Your task to perform on an android device: delete the emails in spam in the gmail app Image 0: 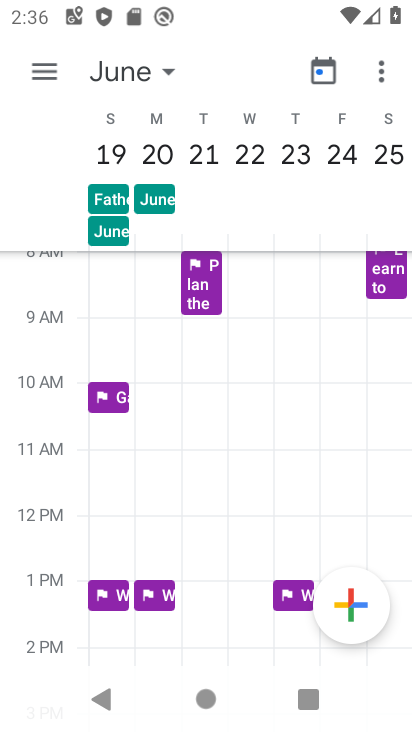
Step 0: press home button
Your task to perform on an android device: delete the emails in spam in the gmail app Image 1: 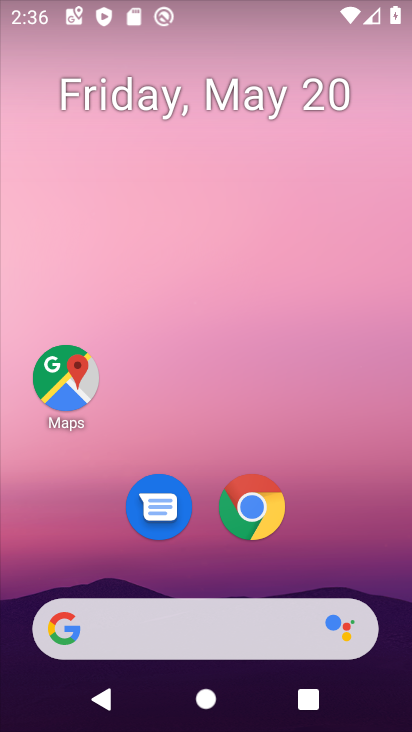
Step 1: drag from (225, 722) to (229, 150)
Your task to perform on an android device: delete the emails in spam in the gmail app Image 2: 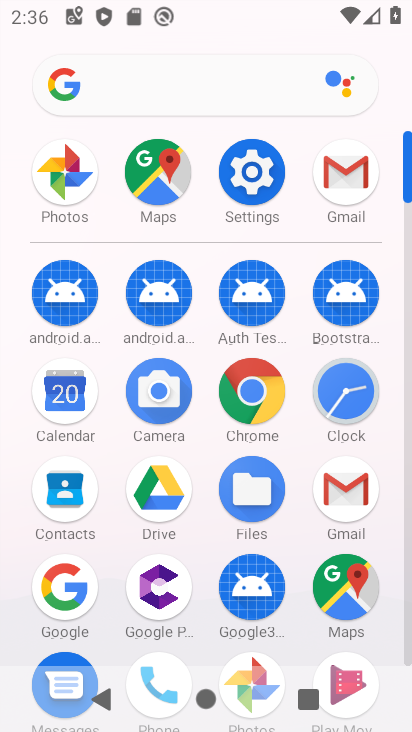
Step 2: click (339, 492)
Your task to perform on an android device: delete the emails in spam in the gmail app Image 3: 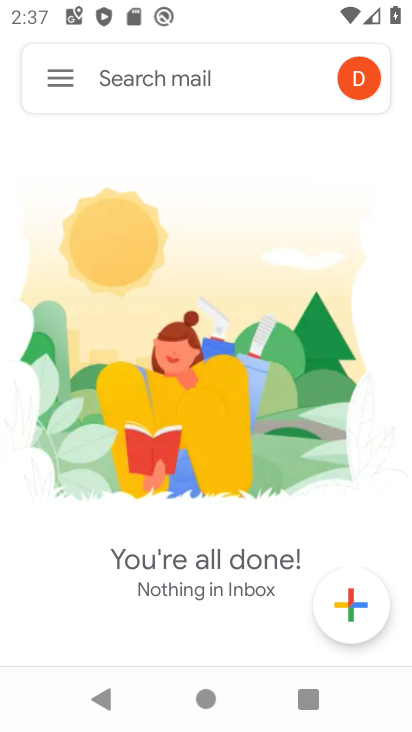
Step 3: task complete